Your task to perform on an android device: Open Wikipedia Image 0: 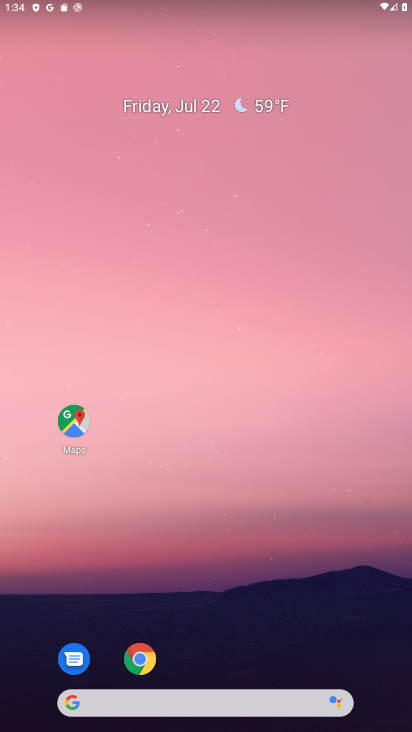
Step 0: drag from (215, 565) to (343, 27)
Your task to perform on an android device: Open Wikipedia Image 1: 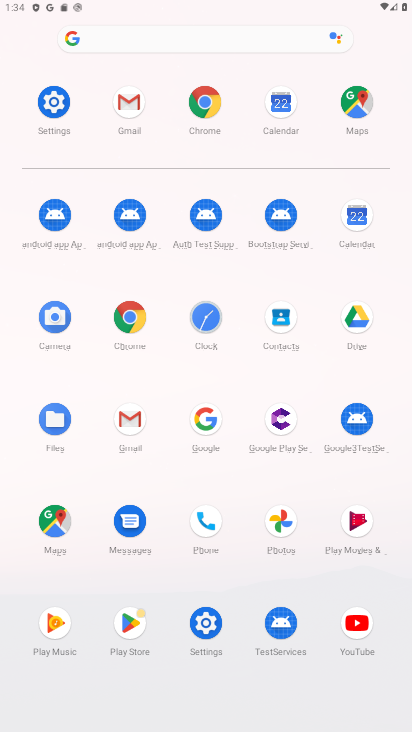
Step 1: click (197, 105)
Your task to perform on an android device: Open Wikipedia Image 2: 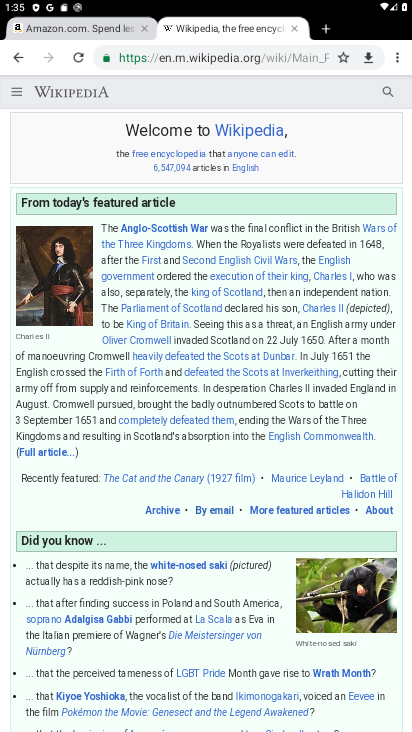
Step 2: task complete